Your task to perform on an android device: toggle javascript in the chrome app Image 0: 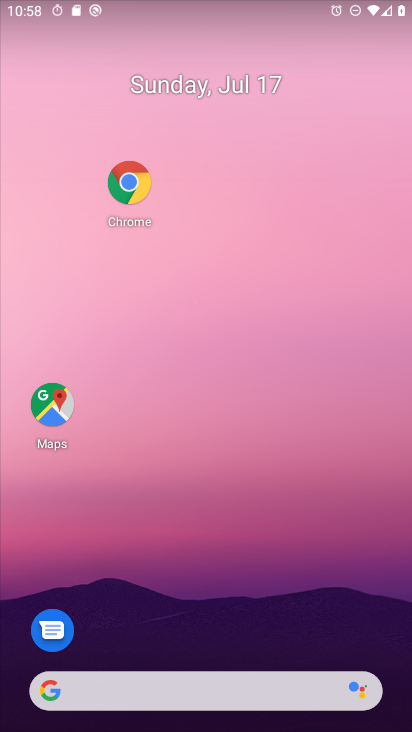
Step 0: drag from (233, 652) to (239, 264)
Your task to perform on an android device: toggle javascript in the chrome app Image 1: 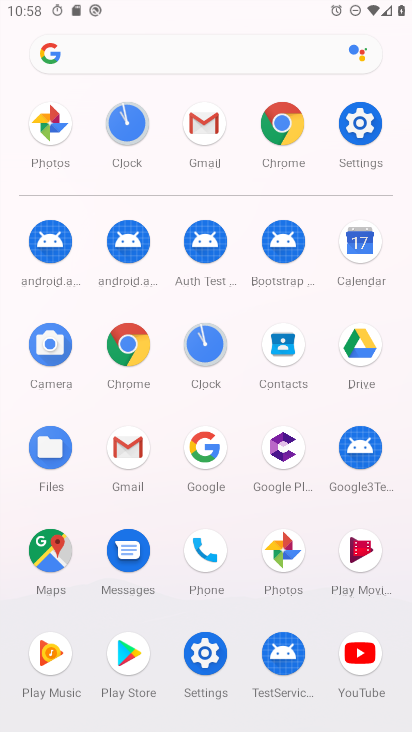
Step 1: click (287, 121)
Your task to perform on an android device: toggle javascript in the chrome app Image 2: 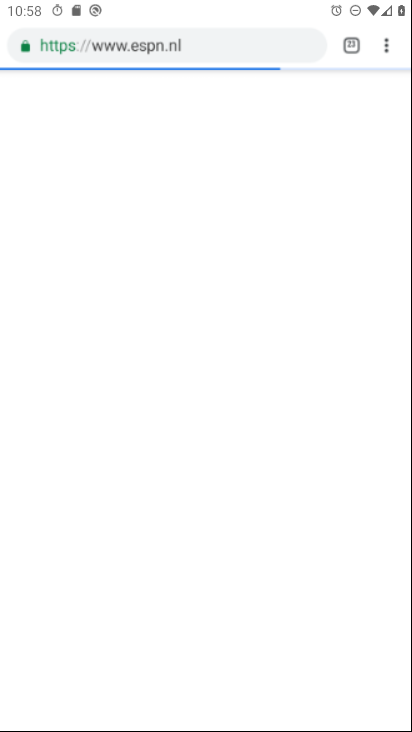
Step 2: click (387, 37)
Your task to perform on an android device: toggle javascript in the chrome app Image 3: 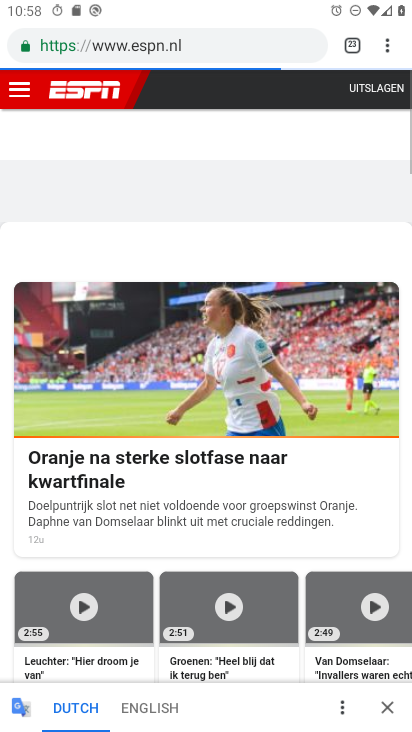
Step 3: click (387, 46)
Your task to perform on an android device: toggle javascript in the chrome app Image 4: 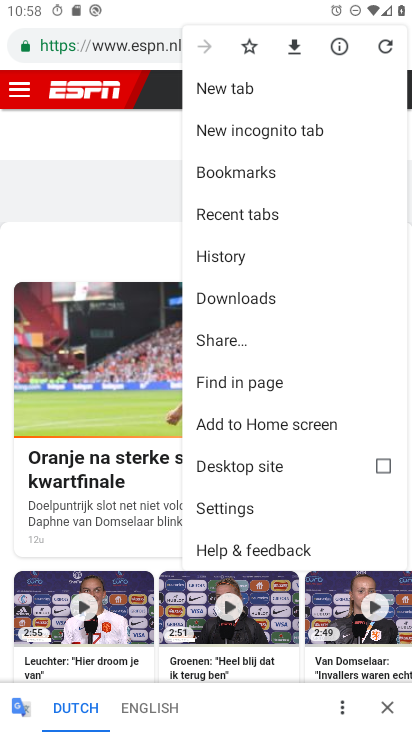
Step 4: click (237, 505)
Your task to perform on an android device: toggle javascript in the chrome app Image 5: 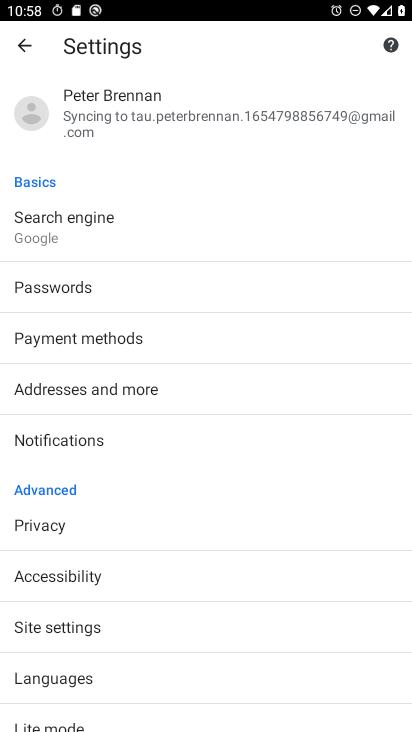
Step 5: click (81, 627)
Your task to perform on an android device: toggle javascript in the chrome app Image 6: 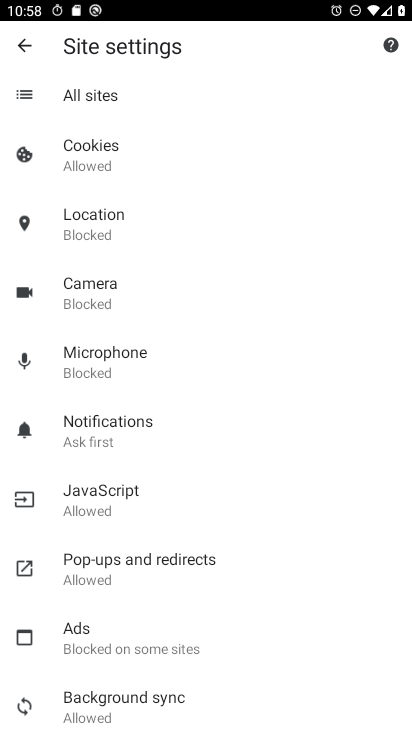
Step 6: click (123, 488)
Your task to perform on an android device: toggle javascript in the chrome app Image 7: 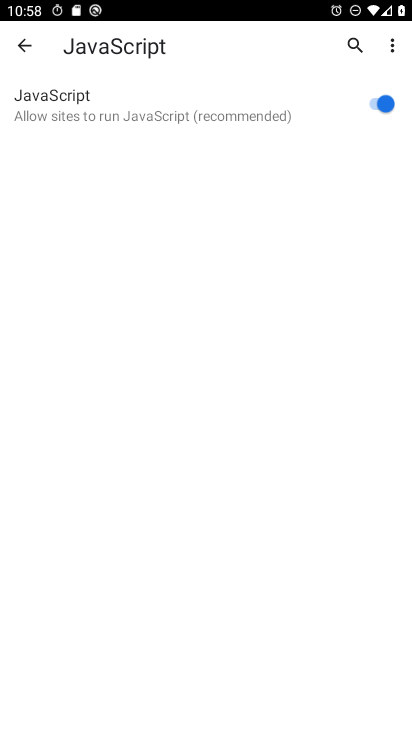
Step 7: click (373, 110)
Your task to perform on an android device: toggle javascript in the chrome app Image 8: 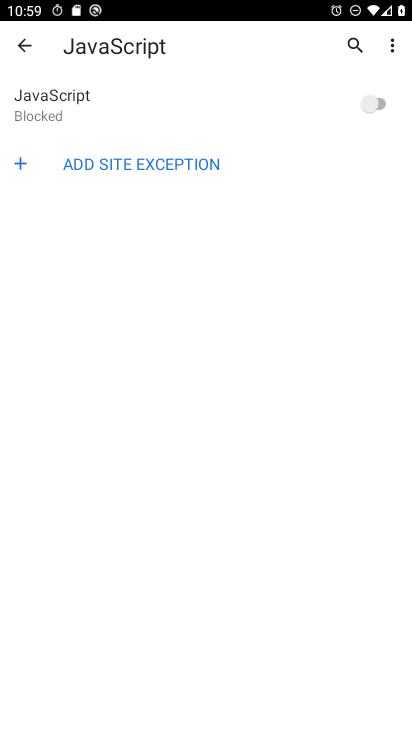
Step 8: task complete